Your task to perform on an android device: toggle sleep mode Image 0: 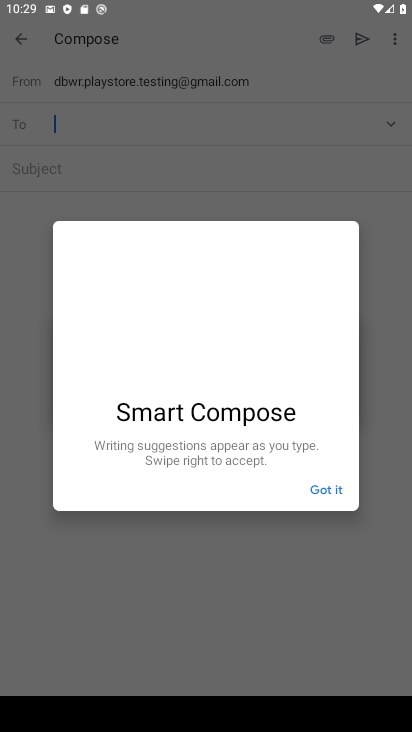
Step 0: press home button
Your task to perform on an android device: toggle sleep mode Image 1: 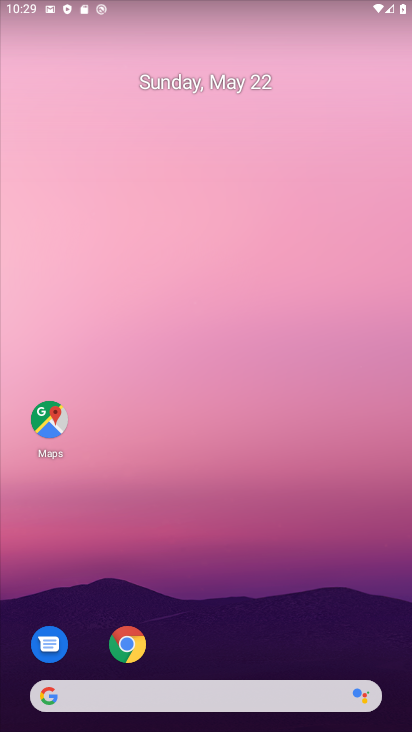
Step 1: drag from (354, 626) to (202, 20)
Your task to perform on an android device: toggle sleep mode Image 2: 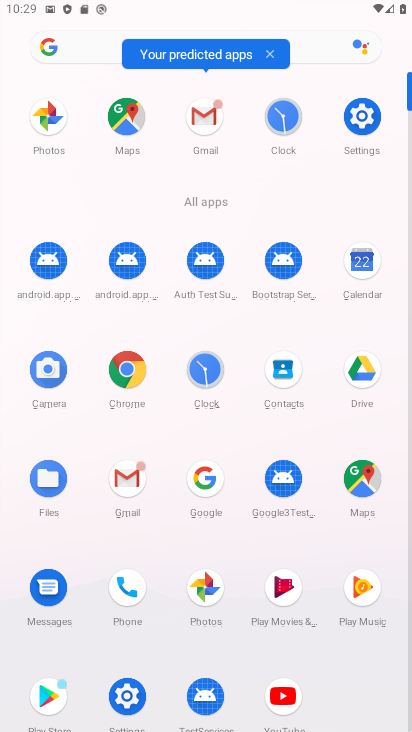
Step 2: click (361, 126)
Your task to perform on an android device: toggle sleep mode Image 3: 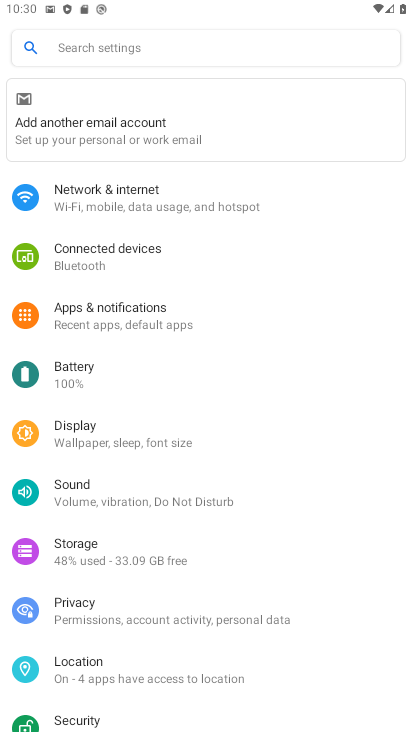
Step 3: task complete